Your task to perform on an android device: Go to privacy settings Image 0: 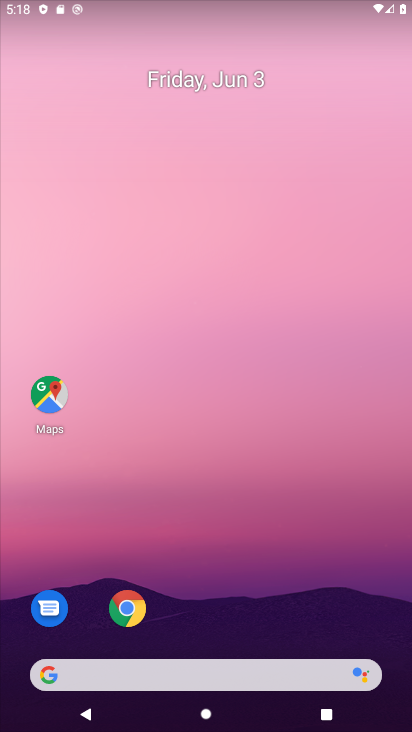
Step 0: drag from (227, 600) to (249, 415)
Your task to perform on an android device: Go to privacy settings Image 1: 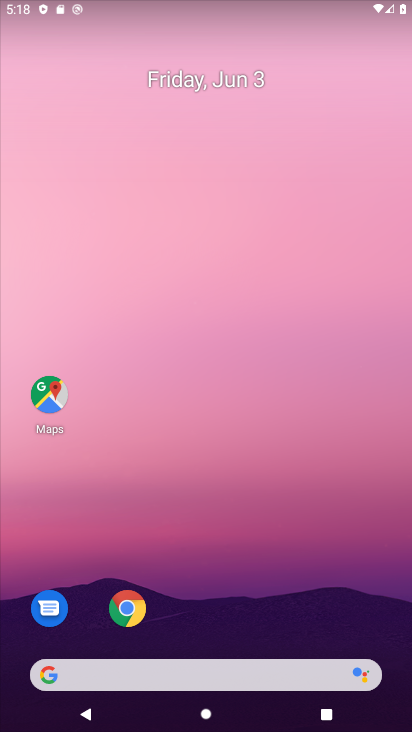
Step 1: drag from (274, 693) to (261, 278)
Your task to perform on an android device: Go to privacy settings Image 2: 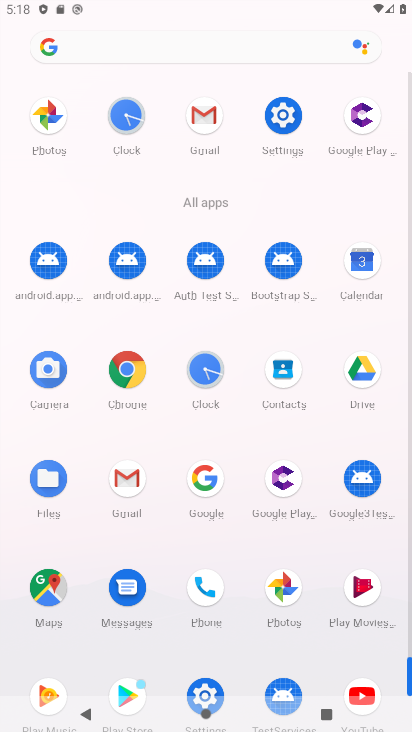
Step 2: click (266, 113)
Your task to perform on an android device: Go to privacy settings Image 3: 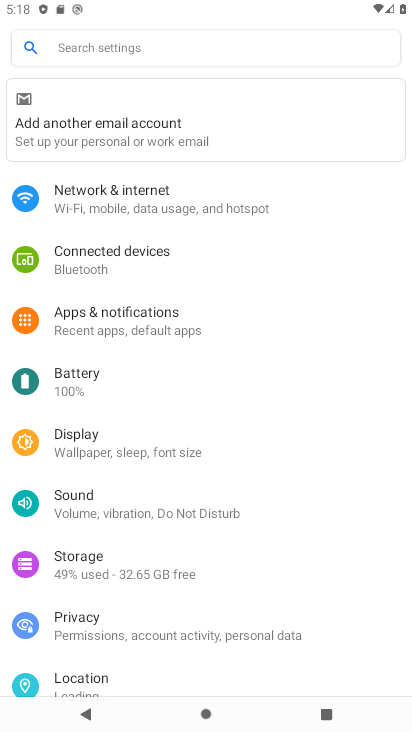
Step 3: click (177, 622)
Your task to perform on an android device: Go to privacy settings Image 4: 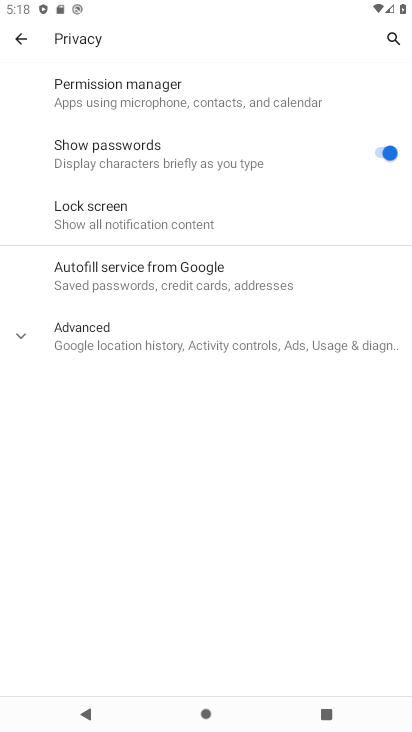
Step 4: task complete